Your task to perform on an android device: turn on notifications settings in the gmail app Image 0: 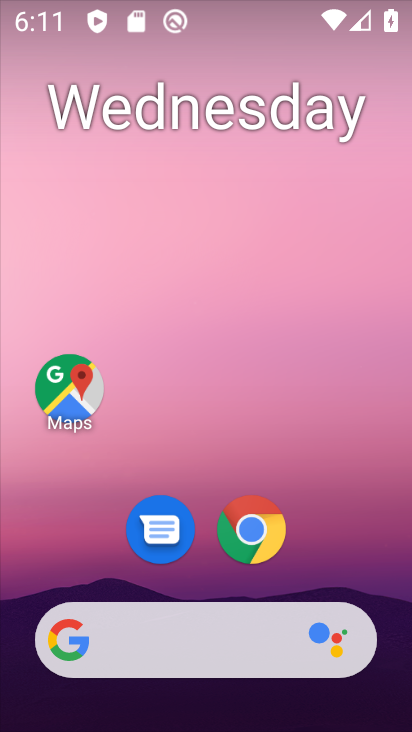
Step 0: drag from (237, 603) to (230, 282)
Your task to perform on an android device: turn on notifications settings in the gmail app Image 1: 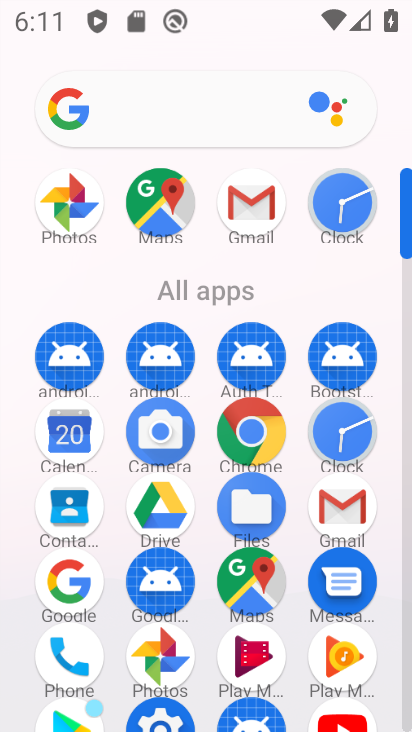
Step 1: click (258, 217)
Your task to perform on an android device: turn on notifications settings in the gmail app Image 2: 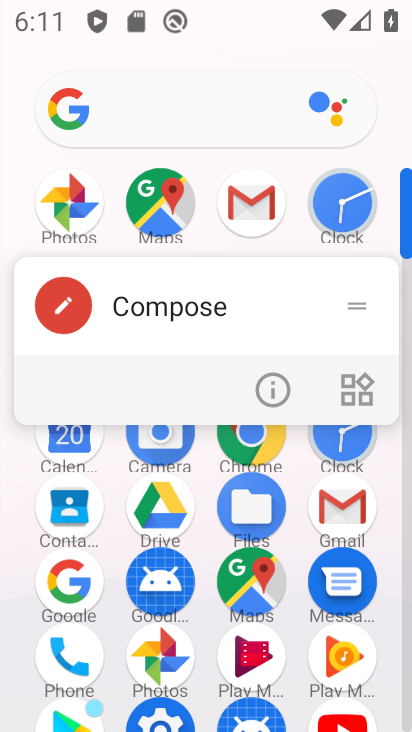
Step 2: click (249, 200)
Your task to perform on an android device: turn on notifications settings in the gmail app Image 3: 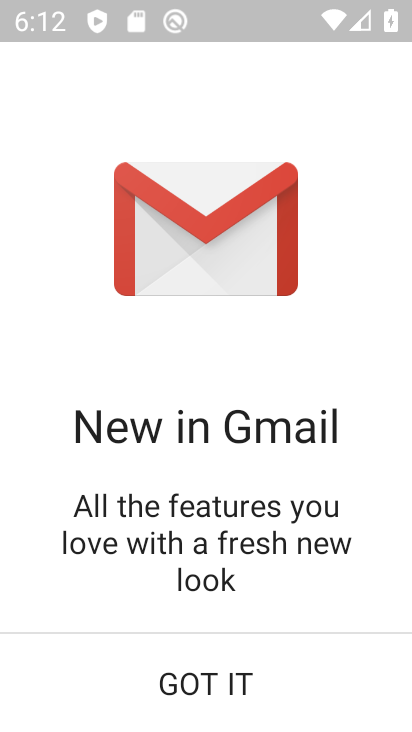
Step 3: click (223, 678)
Your task to perform on an android device: turn on notifications settings in the gmail app Image 4: 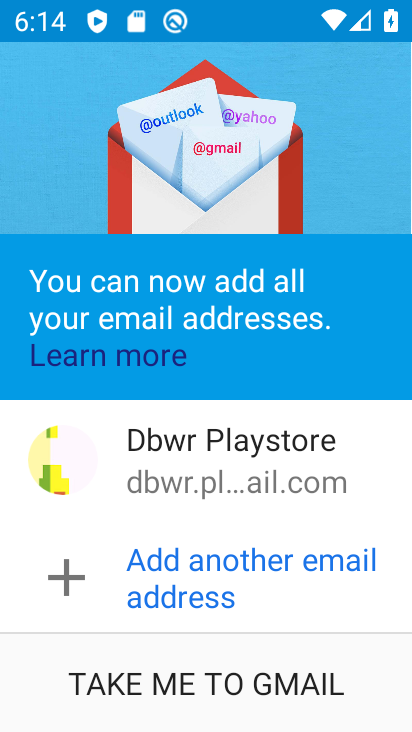
Step 4: task complete